Your task to perform on an android device: Open Chrome and go to the settings page Image 0: 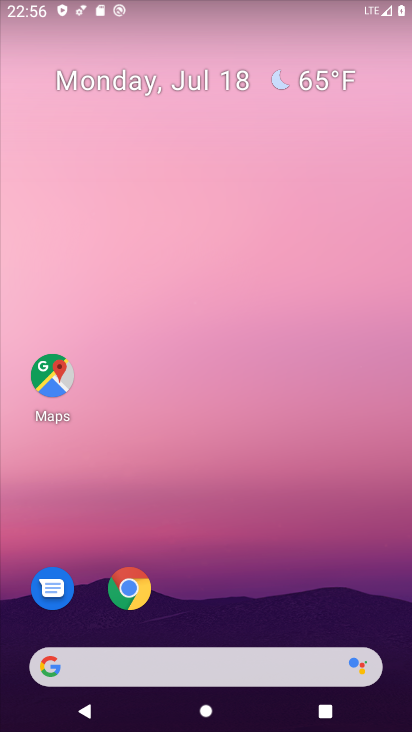
Step 0: press home button
Your task to perform on an android device: Open Chrome and go to the settings page Image 1: 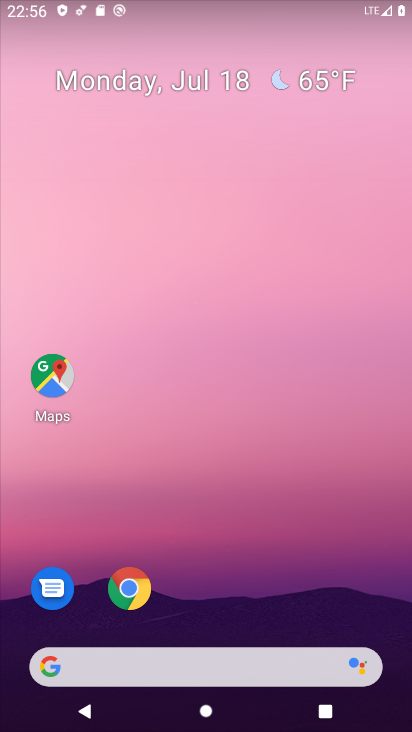
Step 1: click (120, 582)
Your task to perform on an android device: Open Chrome and go to the settings page Image 2: 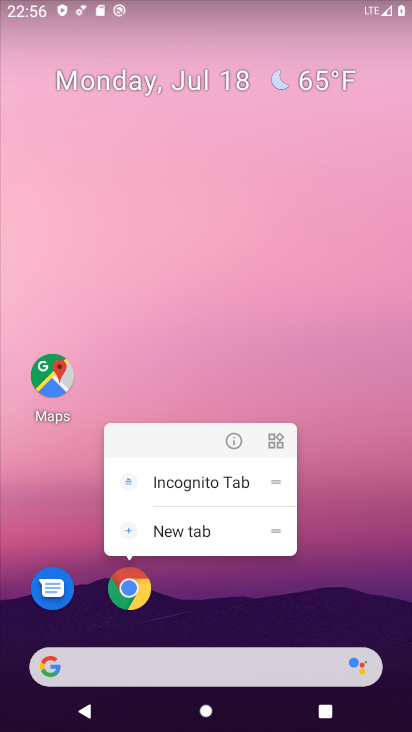
Step 2: click (120, 582)
Your task to perform on an android device: Open Chrome and go to the settings page Image 3: 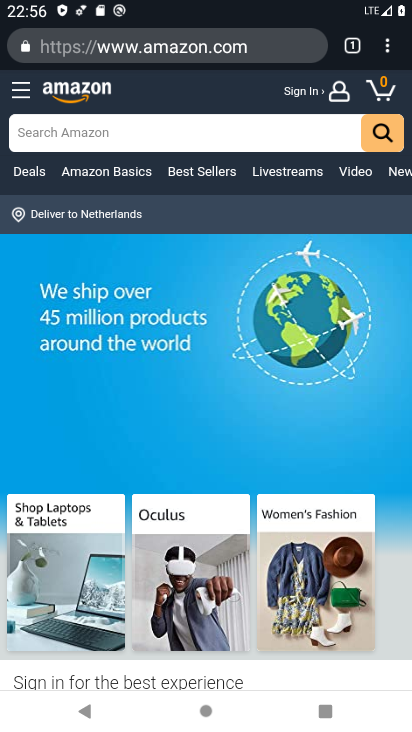
Step 3: task complete